Your task to perform on an android device: Go to Maps Image 0: 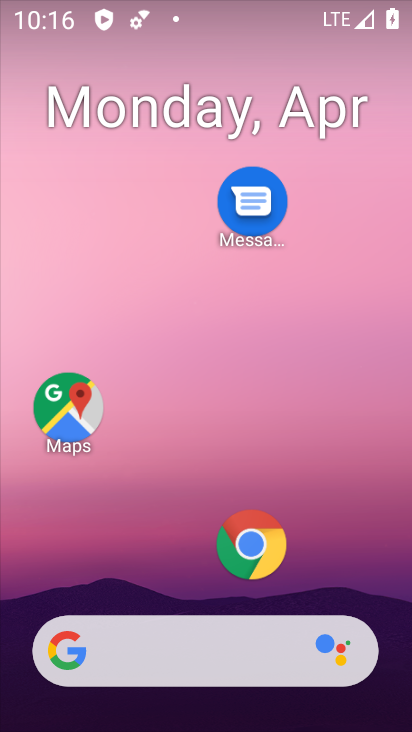
Step 0: click (399, 384)
Your task to perform on an android device: Go to Maps Image 1: 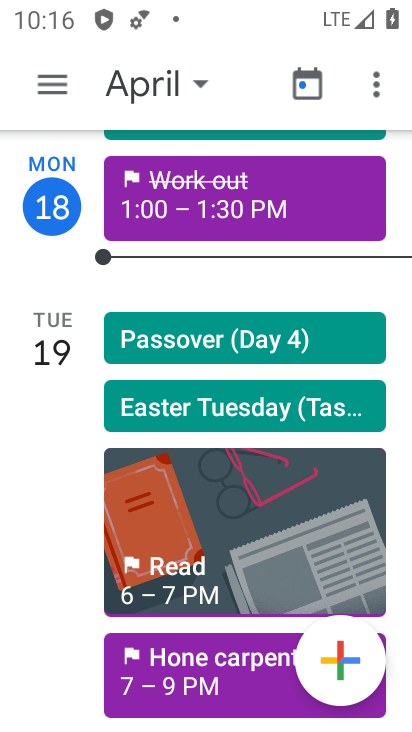
Step 1: press home button
Your task to perform on an android device: Go to Maps Image 2: 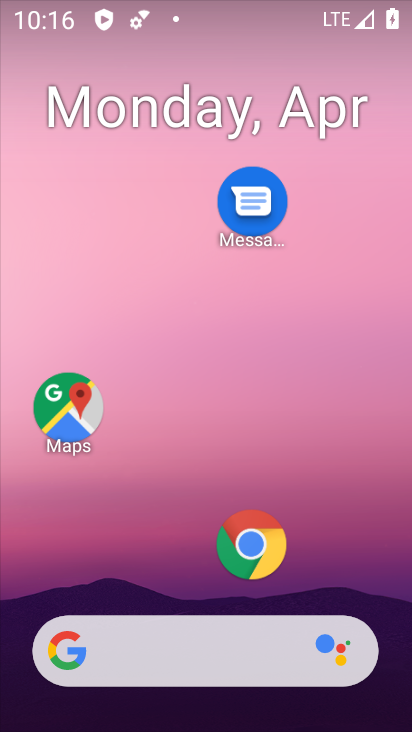
Step 2: click (69, 406)
Your task to perform on an android device: Go to Maps Image 3: 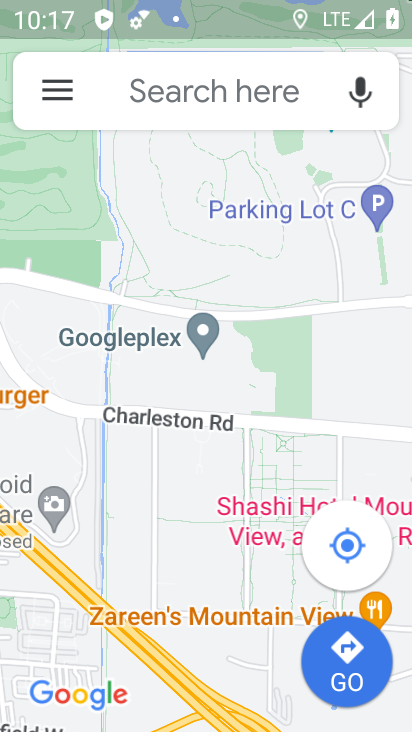
Step 3: click (342, 644)
Your task to perform on an android device: Go to Maps Image 4: 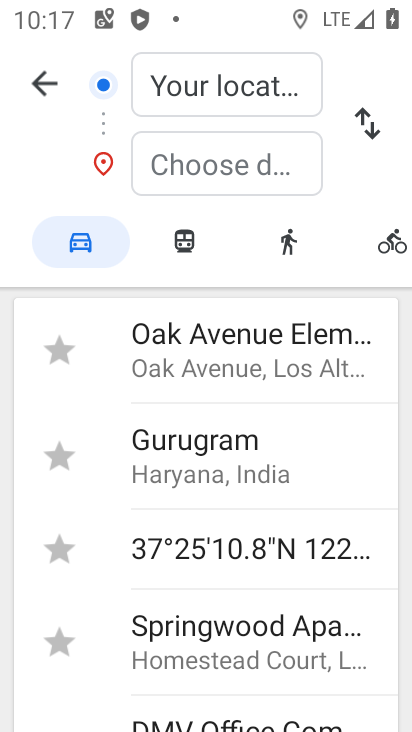
Step 4: task complete